Your task to perform on an android device: Search for Italian restaurants on Maps Image 0: 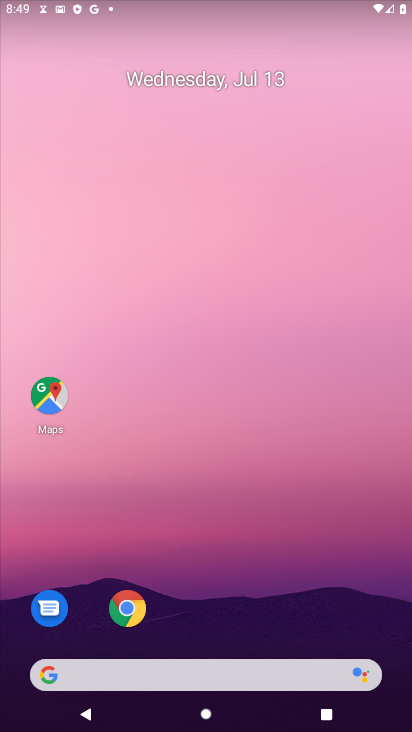
Step 0: click (52, 397)
Your task to perform on an android device: Search for Italian restaurants on Maps Image 1: 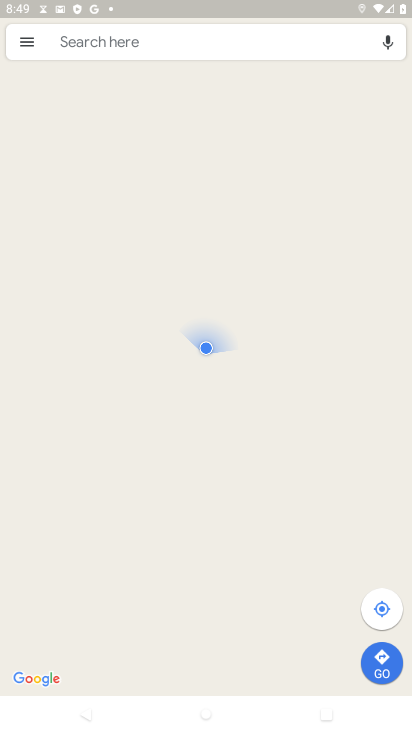
Step 1: click (171, 53)
Your task to perform on an android device: Search for Italian restaurants on Maps Image 2: 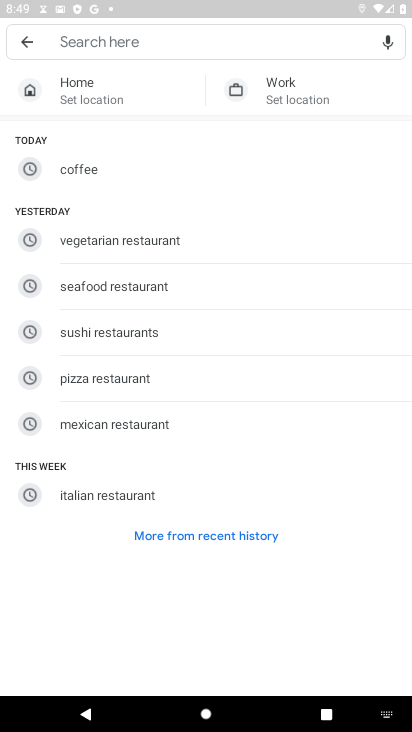
Step 2: type "Italain restaurants"
Your task to perform on an android device: Search for Italian restaurants on Maps Image 3: 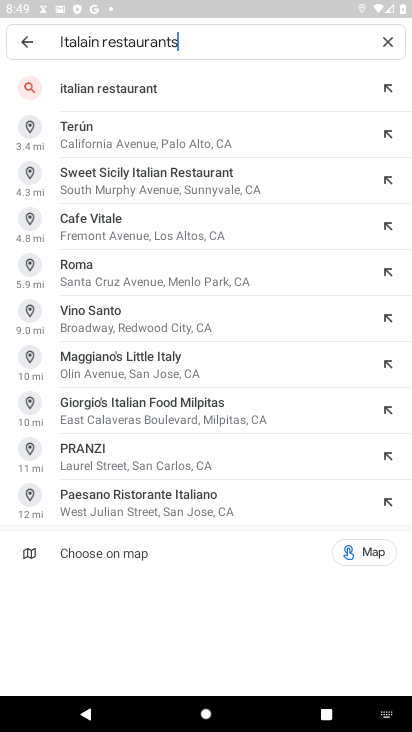
Step 3: press enter
Your task to perform on an android device: Search for Italian restaurants on Maps Image 4: 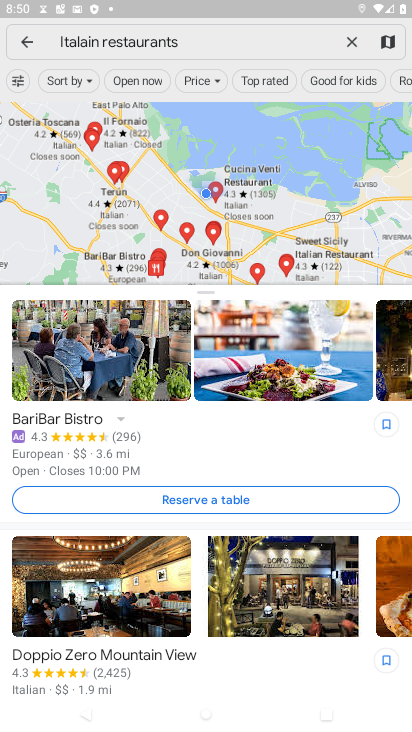
Step 4: task complete